Your task to perform on an android device: add a contact Image 0: 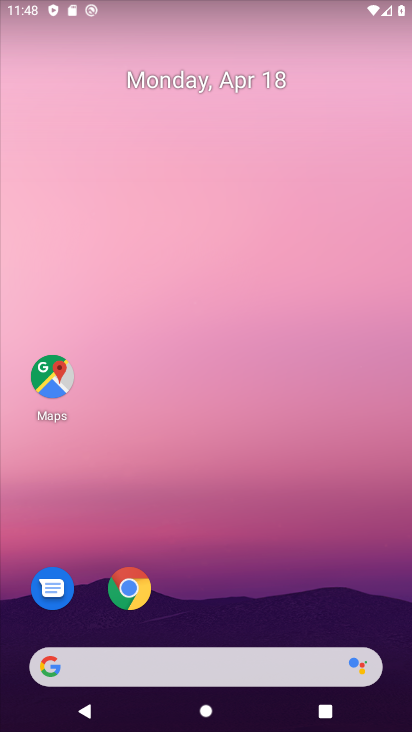
Step 0: drag from (378, 597) to (368, 92)
Your task to perform on an android device: add a contact Image 1: 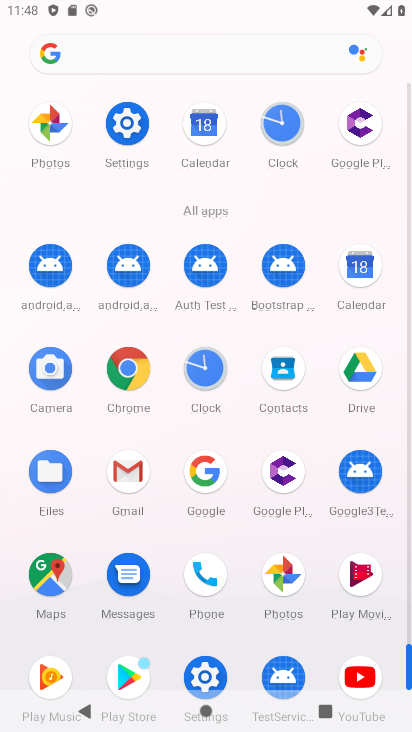
Step 1: click (290, 372)
Your task to perform on an android device: add a contact Image 2: 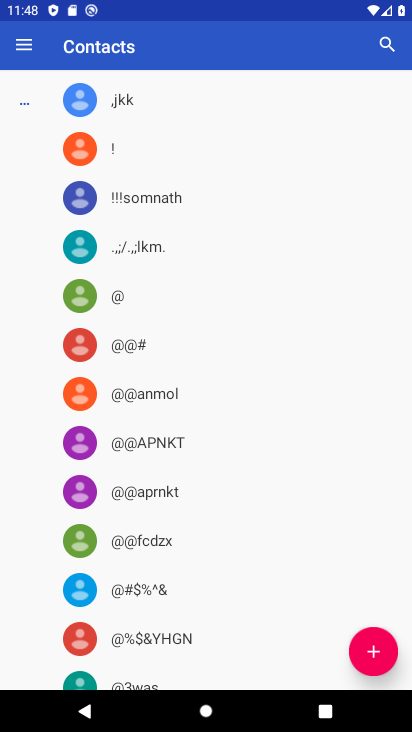
Step 2: click (366, 651)
Your task to perform on an android device: add a contact Image 3: 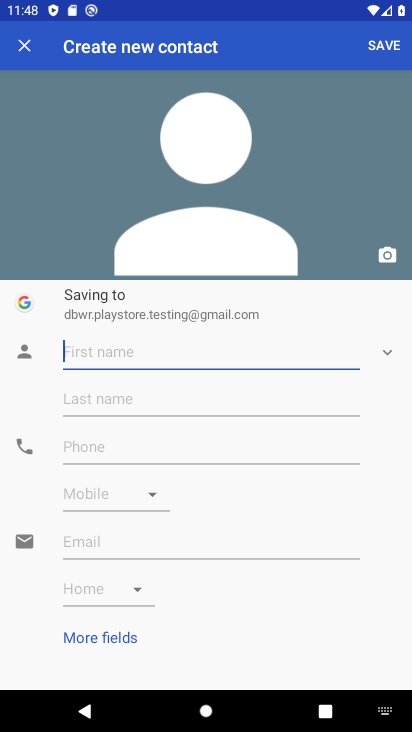
Step 3: click (209, 355)
Your task to perform on an android device: add a contact Image 4: 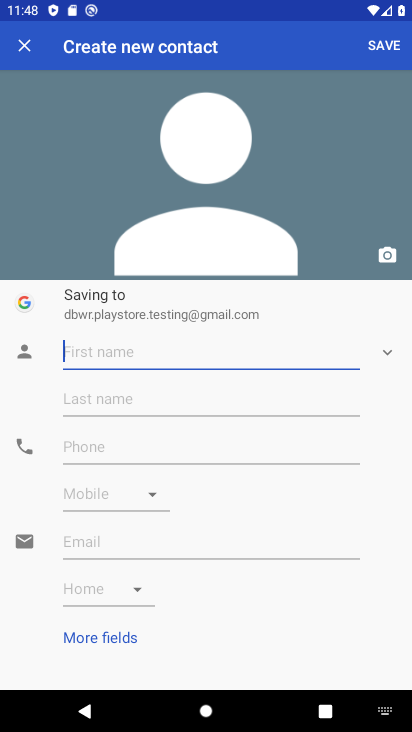
Step 4: type "lol"
Your task to perform on an android device: add a contact Image 5: 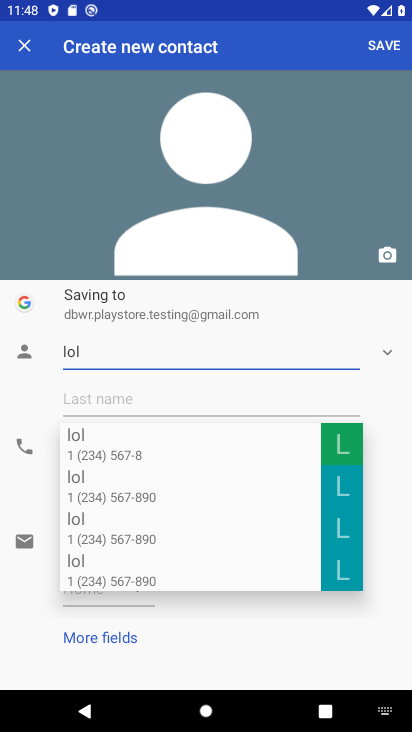
Step 5: click (395, 417)
Your task to perform on an android device: add a contact Image 6: 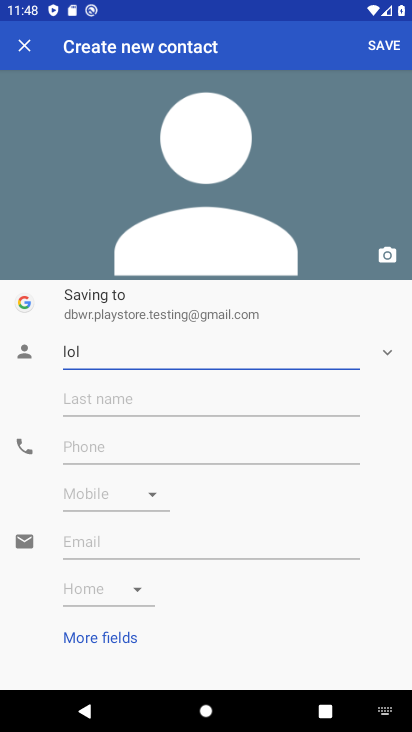
Step 6: click (251, 444)
Your task to perform on an android device: add a contact Image 7: 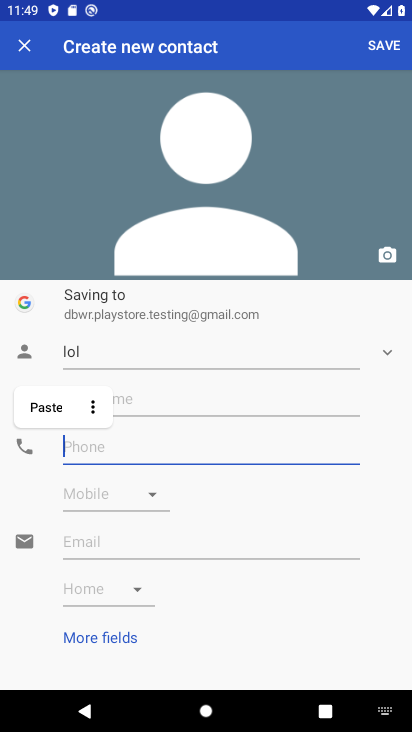
Step 7: type "1234567"
Your task to perform on an android device: add a contact Image 8: 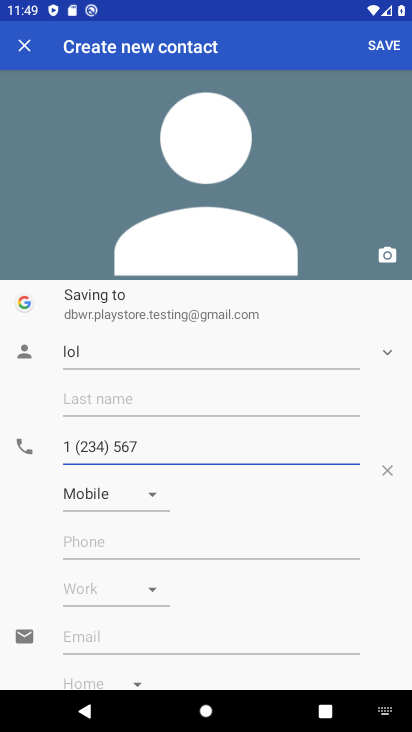
Step 8: click (394, 44)
Your task to perform on an android device: add a contact Image 9: 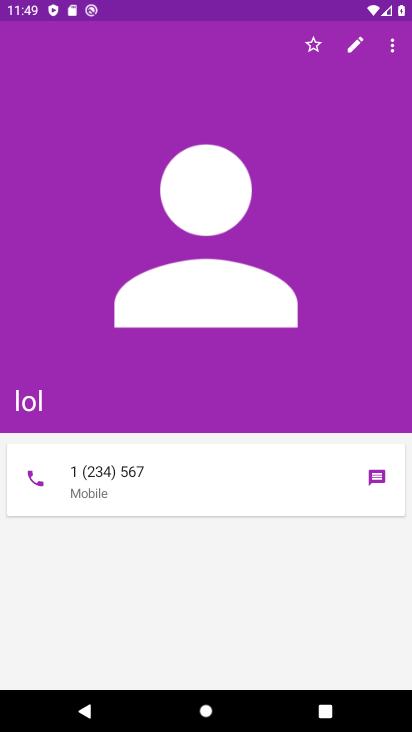
Step 9: task complete